Your task to perform on an android device: Open maps Image 0: 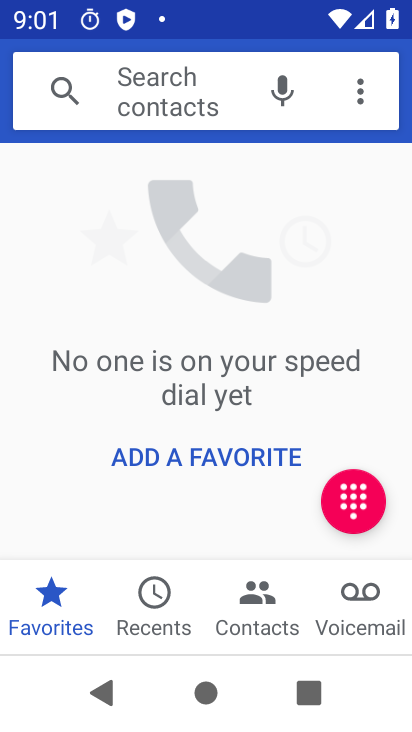
Step 0: press home button
Your task to perform on an android device: Open maps Image 1: 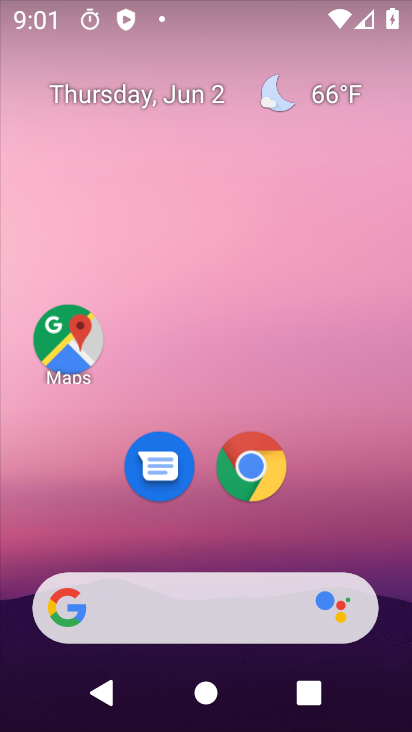
Step 1: click (61, 324)
Your task to perform on an android device: Open maps Image 2: 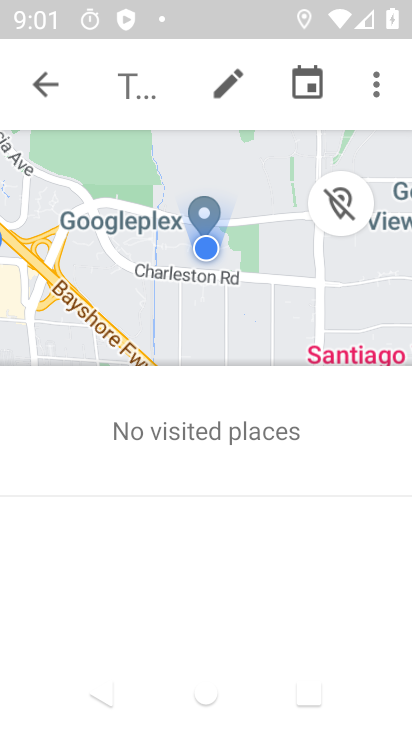
Step 2: click (25, 93)
Your task to perform on an android device: Open maps Image 3: 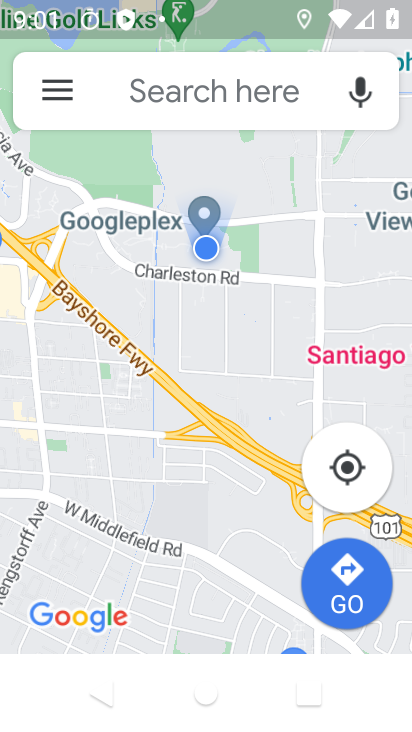
Step 3: task complete